Your task to perform on an android device: What's on my calendar tomorrow? Image 0: 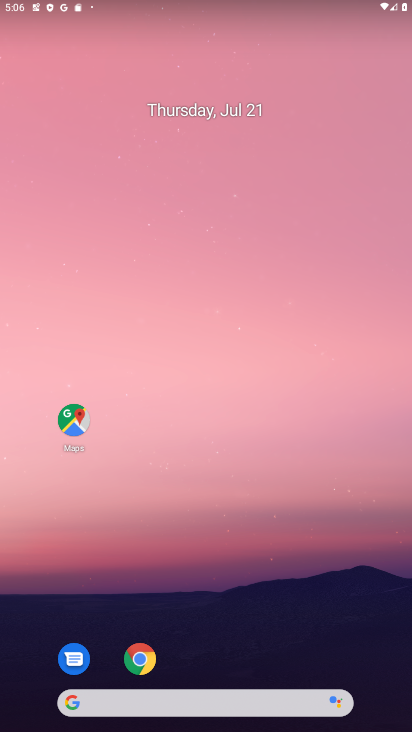
Step 0: drag from (213, 617) to (111, 15)
Your task to perform on an android device: What's on my calendar tomorrow? Image 1: 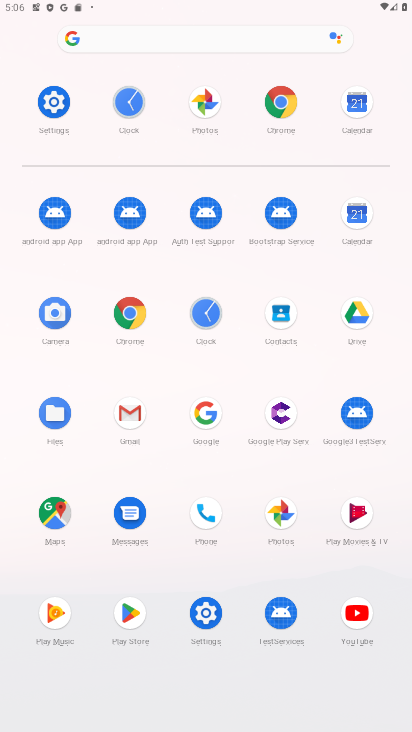
Step 1: click (354, 215)
Your task to perform on an android device: What's on my calendar tomorrow? Image 2: 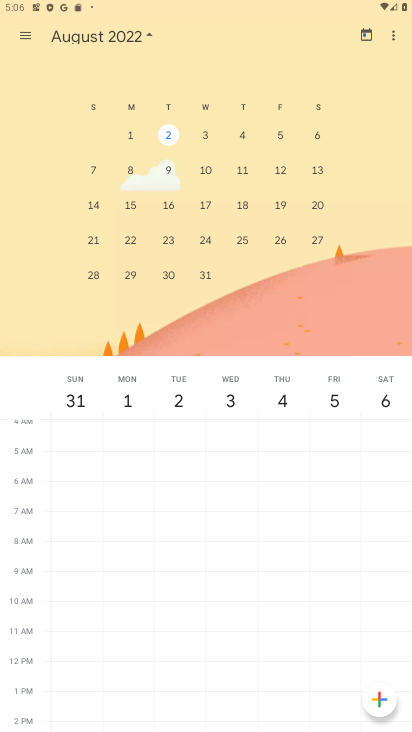
Step 2: drag from (81, 186) to (397, 188)
Your task to perform on an android device: What's on my calendar tomorrow? Image 3: 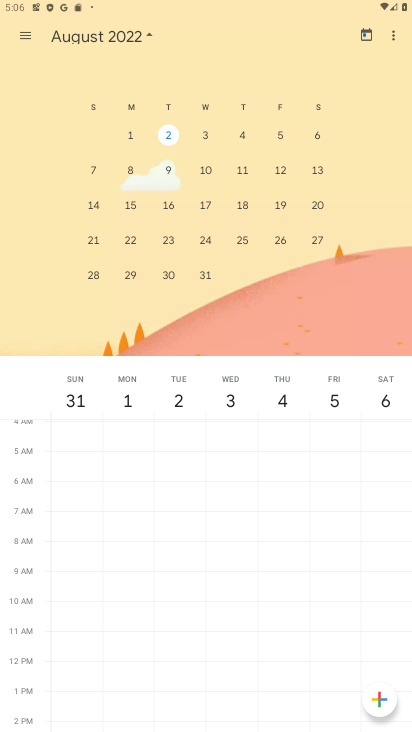
Step 3: drag from (79, 188) to (352, 223)
Your task to perform on an android device: What's on my calendar tomorrow? Image 4: 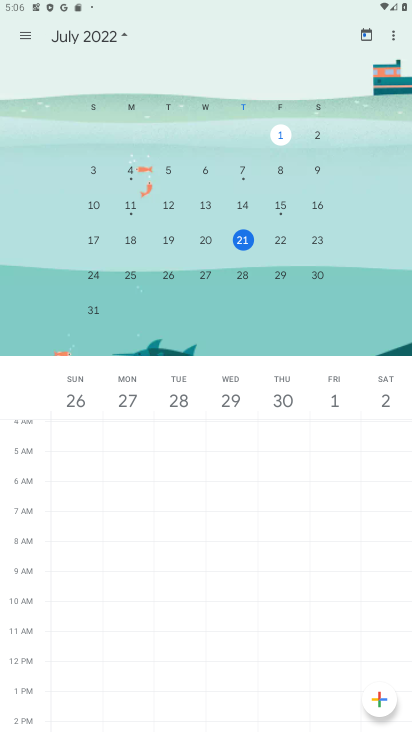
Step 4: click (279, 241)
Your task to perform on an android device: What's on my calendar tomorrow? Image 5: 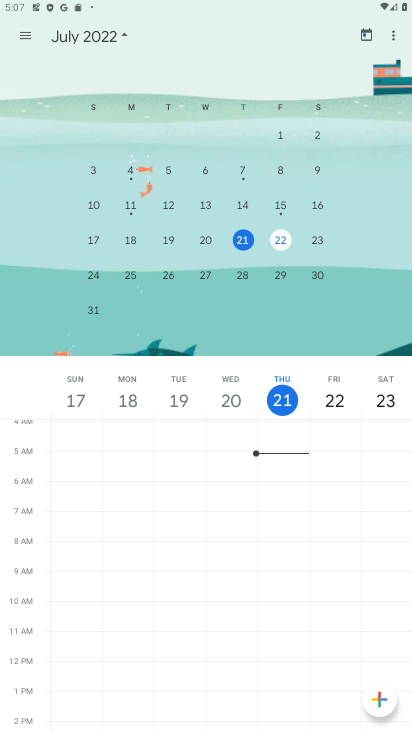
Step 5: task complete